Your task to perform on an android device: Open calendar and show me the second week of next month Image 0: 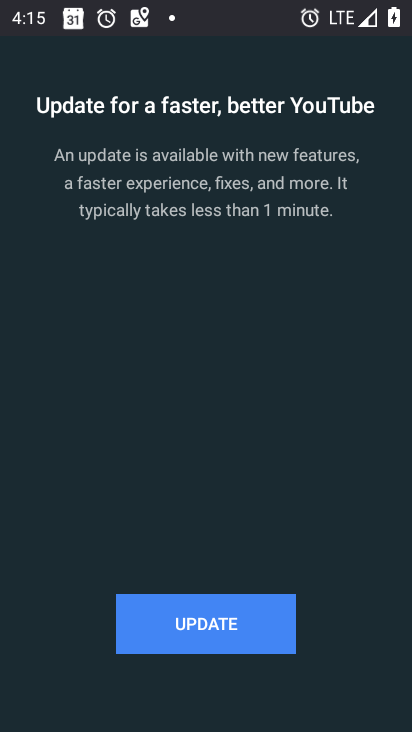
Step 0: press home button
Your task to perform on an android device: Open calendar and show me the second week of next month Image 1: 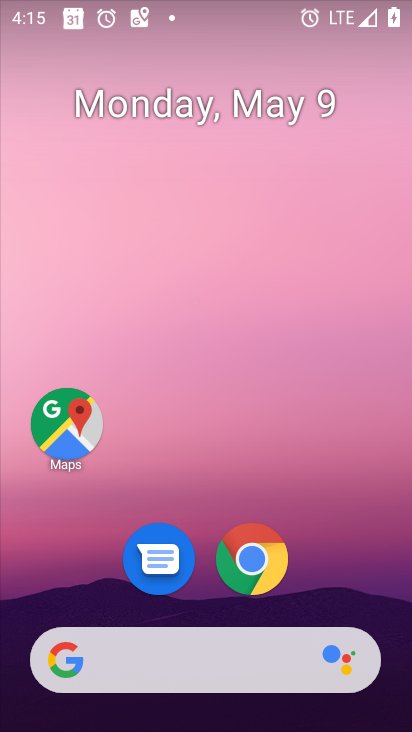
Step 1: drag from (209, 722) to (206, 195)
Your task to perform on an android device: Open calendar and show me the second week of next month Image 2: 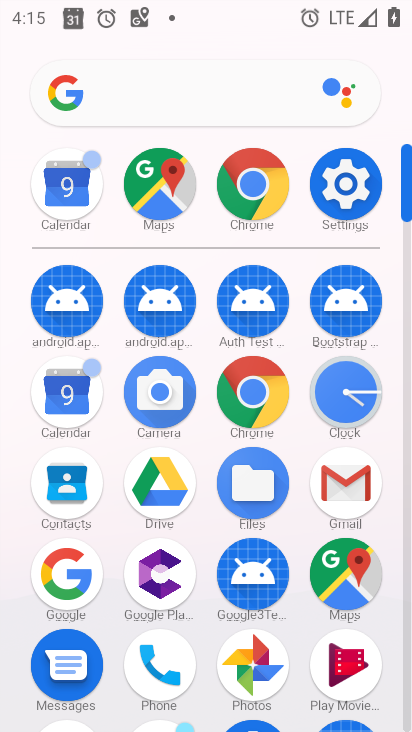
Step 2: click (69, 395)
Your task to perform on an android device: Open calendar and show me the second week of next month Image 3: 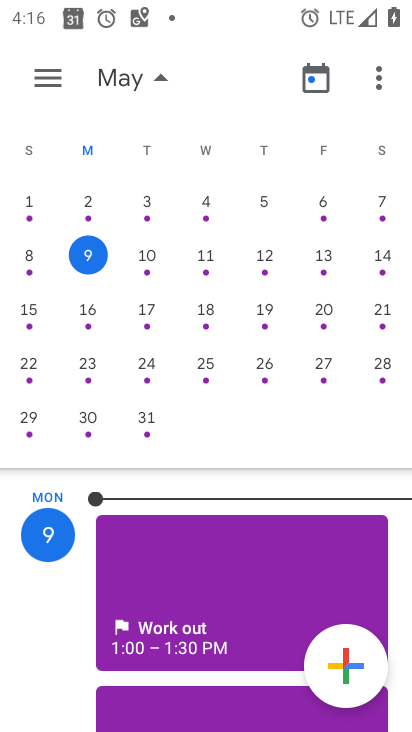
Step 3: drag from (357, 241) to (47, 257)
Your task to perform on an android device: Open calendar and show me the second week of next month Image 4: 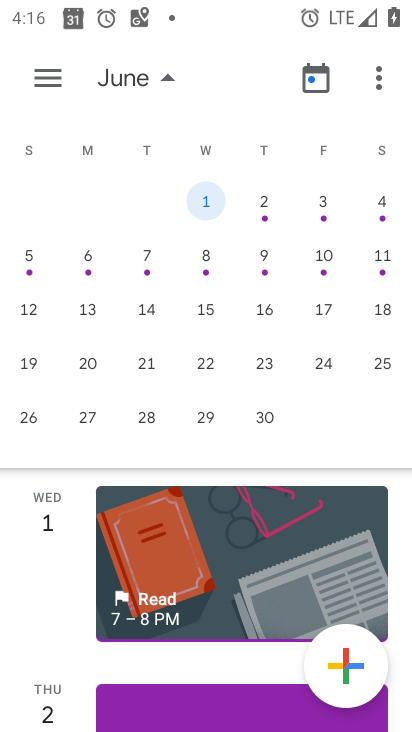
Step 4: click (89, 306)
Your task to perform on an android device: Open calendar and show me the second week of next month Image 5: 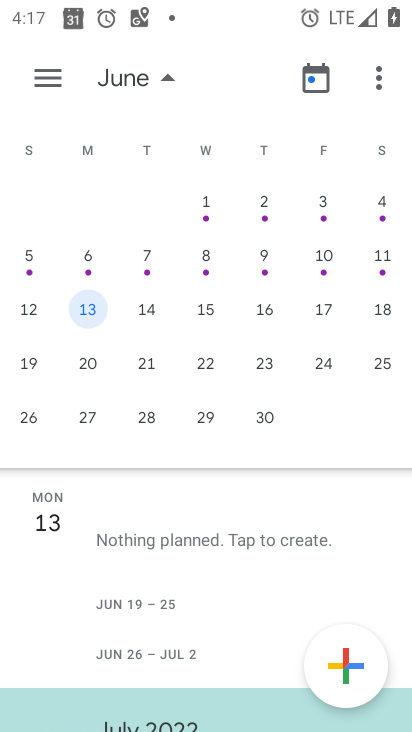
Step 5: task complete